Your task to perform on an android device: Go to location settings Image 0: 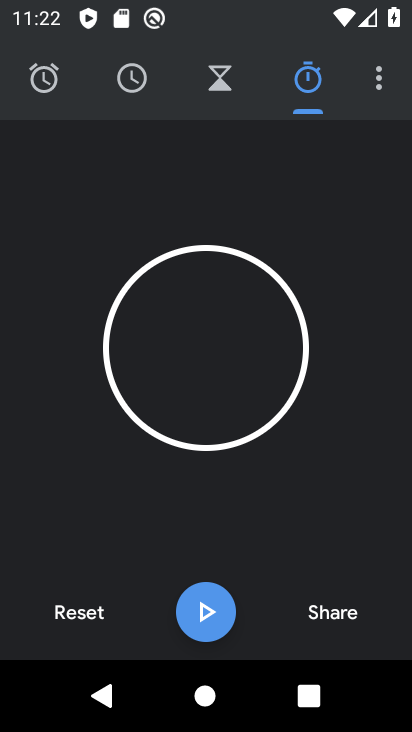
Step 0: press home button
Your task to perform on an android device: Go to location settings Image 1: 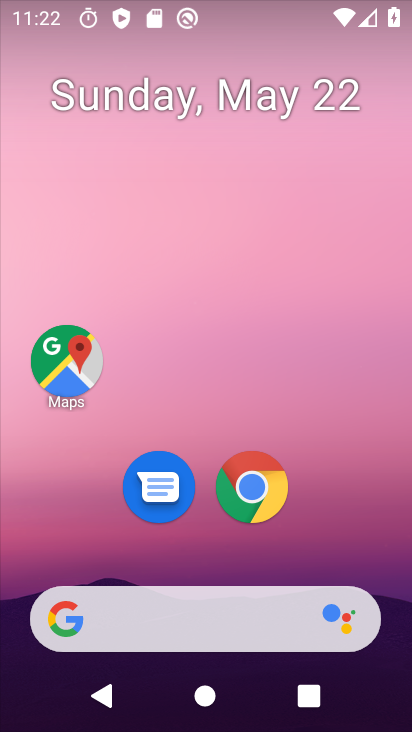
Step 1: drag from (304, 537) to (334, 173)
Your task to perform on an android device: Go to location settings Image 2: 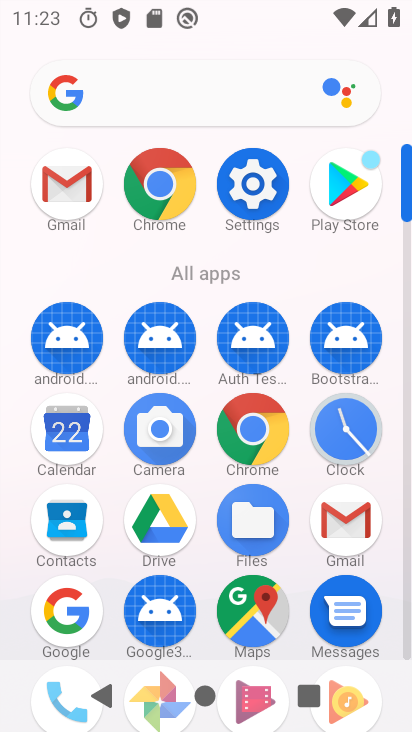
Step 2: click (236, 191)
Your task to perform on an android device: Go to location settings Image 3: 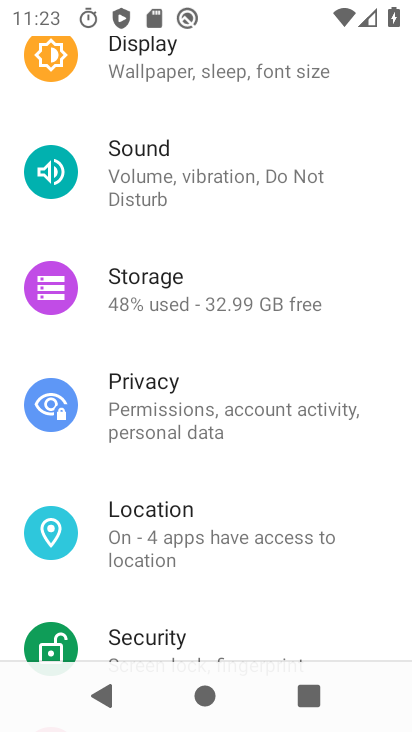
Step 3: click (189, 526)
Your task to perform on an android device: Go to location settings Image 4: 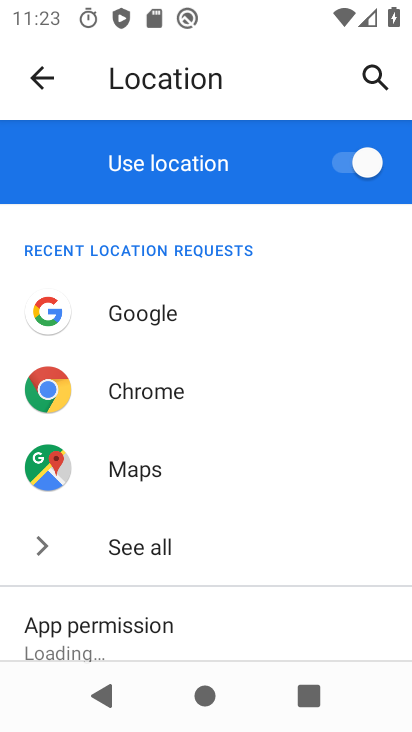
Step 4: task complete